Your task to perform on an android device: Is it going to rain tomorrow? Image 0: 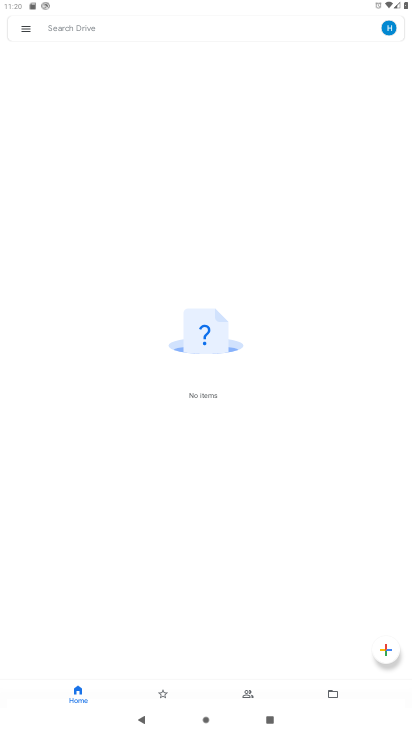
Step 0: press home button
Your task to perform on an android device: Is it going to rain tomorrow? Image 1: 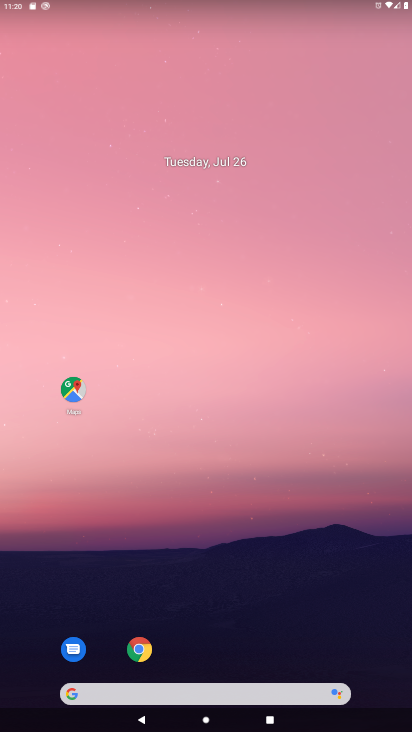
Step 1: click (153, 690)
Your task to perform on an android device: Is it going to rain tomorrow? Image 2: 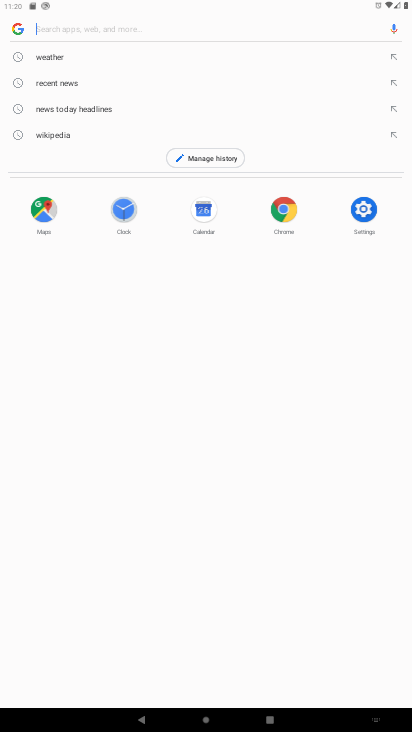
Step 2: click (42, 58)
Your task to perform on an android device: Is it going to rain tomorrow? Image 3: 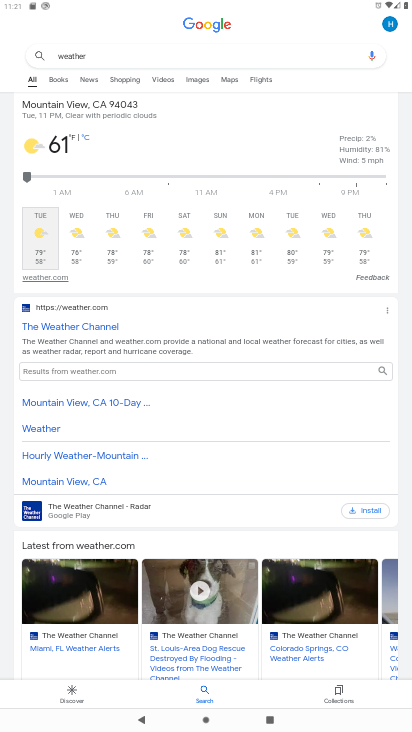
Step 3: click (84, 240)
Your task to perform on an android device: Is it going to rain tomorrow? Image 4: 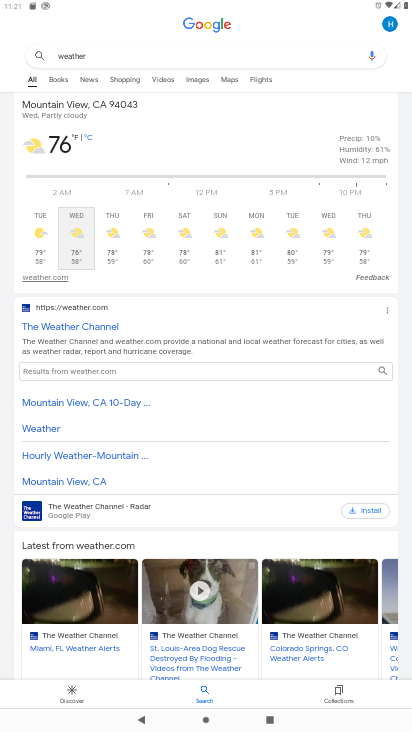
Step 4: task complete